Your task to perform on an android device: Search for sushi restaurants on Maps Image 0: 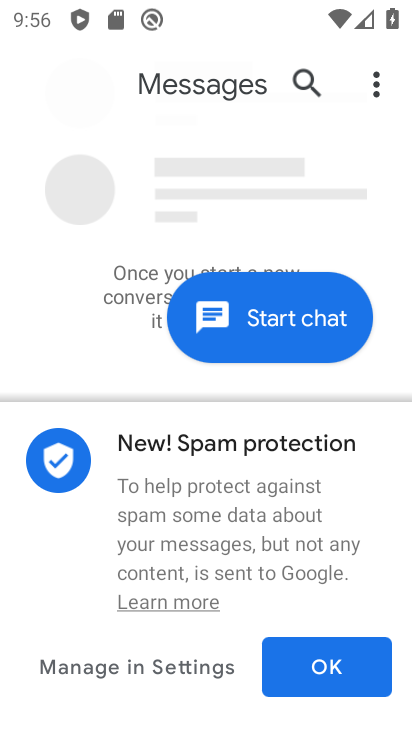
Step 0: click (300, 326)
Your task to perform on an android device: Search for sushi restaurants on Maps Image 1: 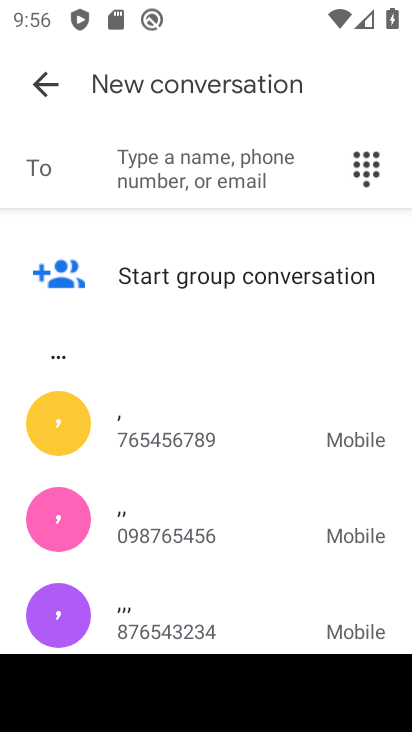
Step 1: press home button
Your task to perform on an android device: Search for sushi restaurants on Maps Image 2: 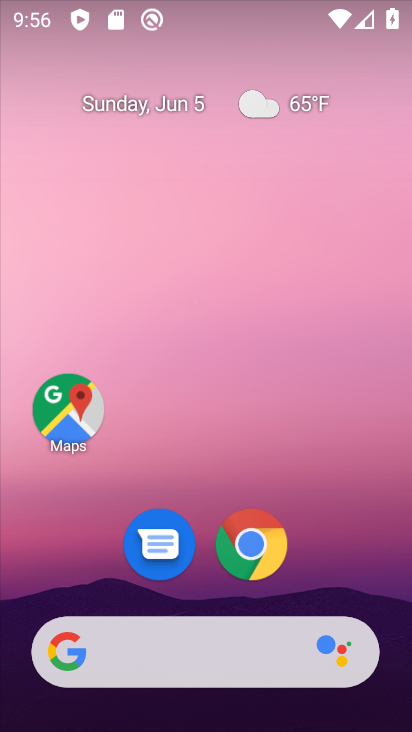
Step 2: drag from (325, 549) to (281, 108)
Your task to perform on an android device: Search for sushi restaurants on Maps Image 3: 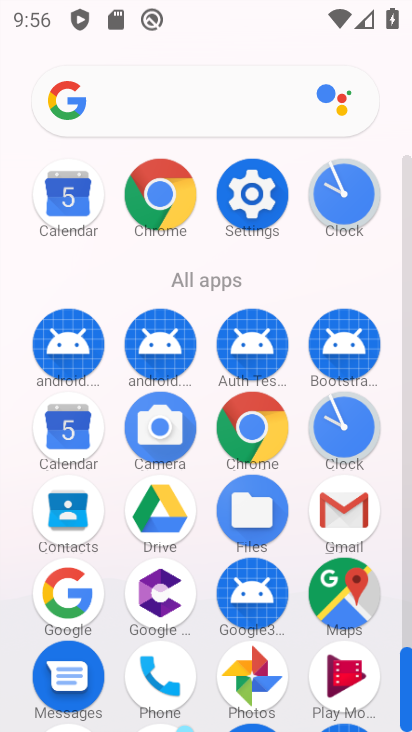
Step 3: click (336, 568)
Your task to perform on an android device: Search for sushi restaurants on Maps Image 4: 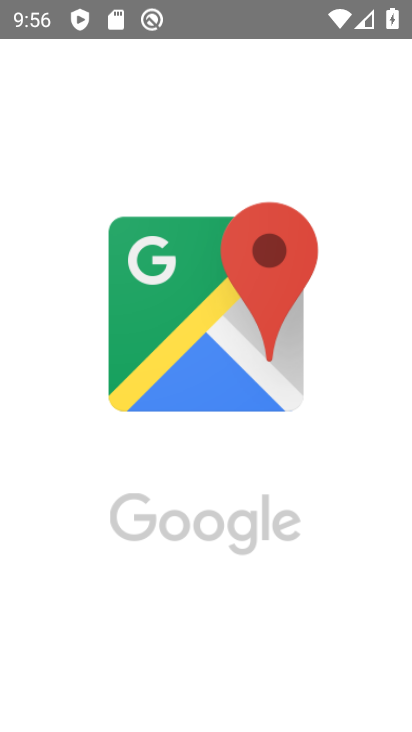
Step 4: task complete